Your task to perform on an android device: Open the web browser Image 0: 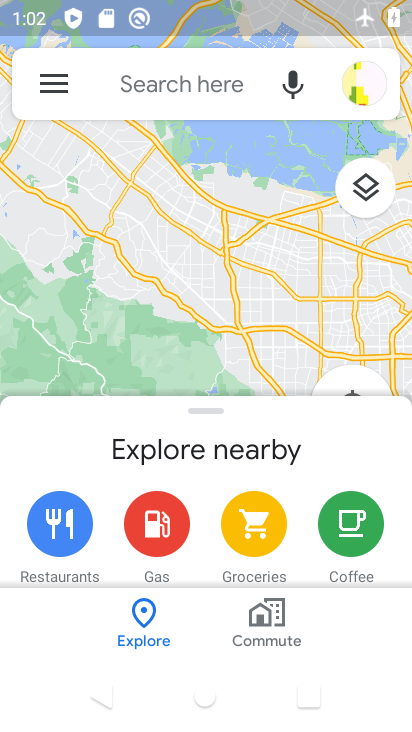
Step 0: press home button
Your task to perform on an android device: Open the web browser Image 1: 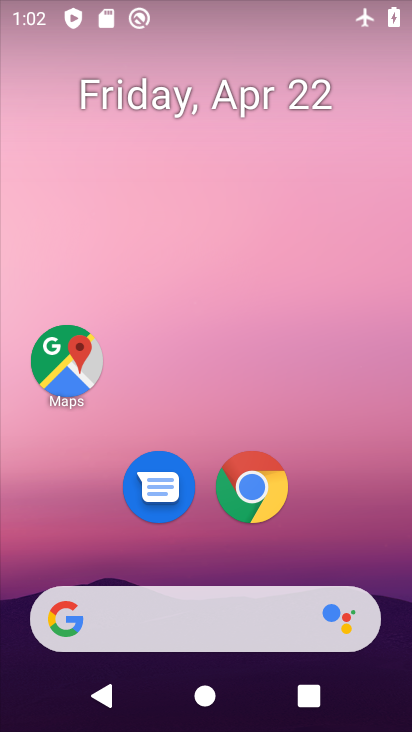
Step 1: drag from (224, 552) to (222, 146)
Your task to perform on an android device: Open the web browser Image 2: 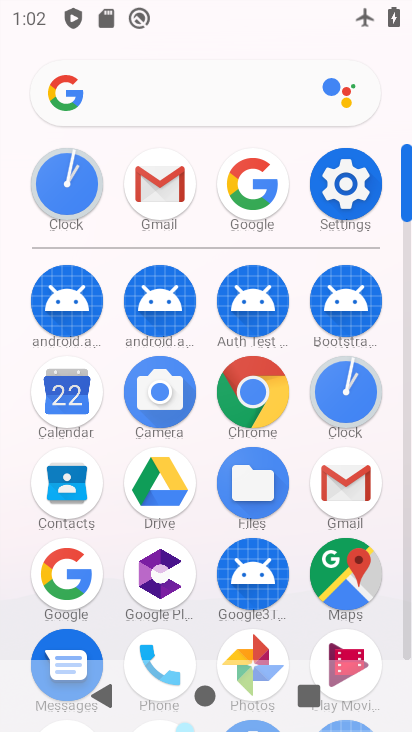
Step 2: click (245, 397)
Your task to perform on an android device: Open the web browser Image 3: 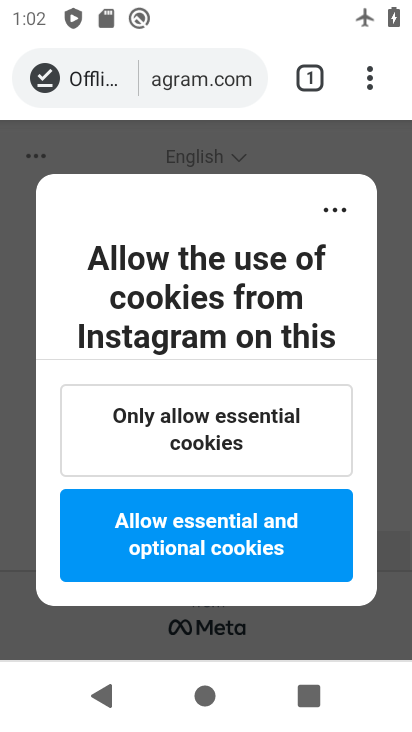
Step 3: task complete